Your task to perform on an android device: turn off wifi Image 0: 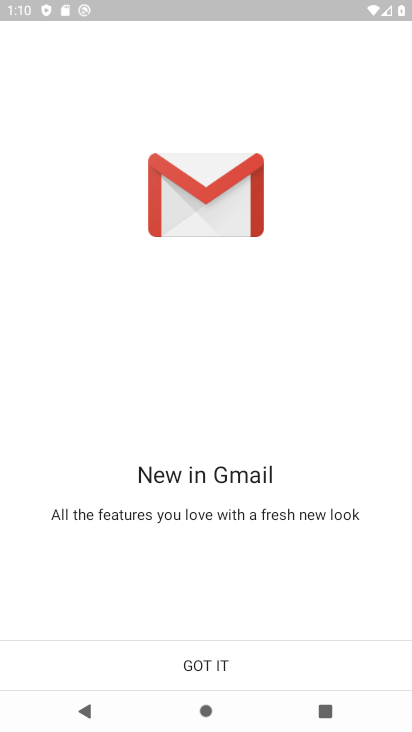
Step 0: press home button
Your task to perform on an android device: turn off wifi Image 1: 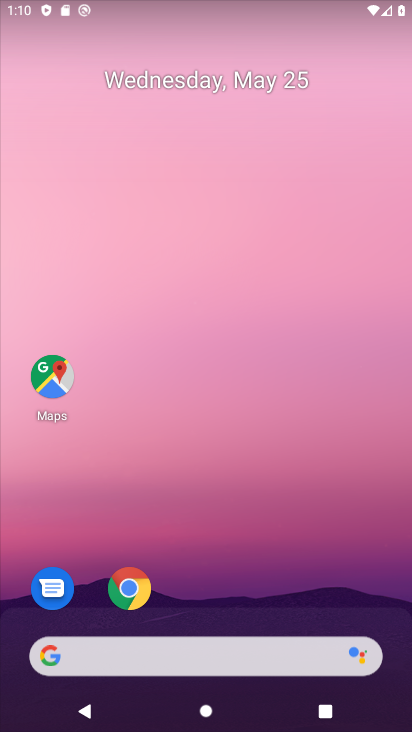
Step 1: drag from (235, 638) to (251, 5)
Your task to perform on an android device: turn off wifi Image 2: 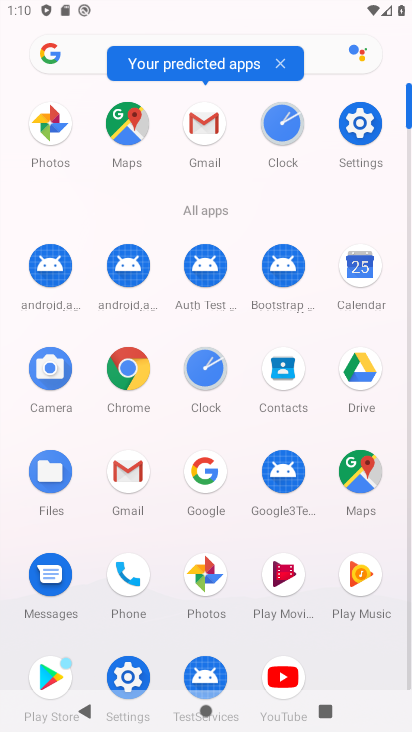
Step 2: click (353, 123)
Your task to perform on an android device: turn off wifi Image 3: 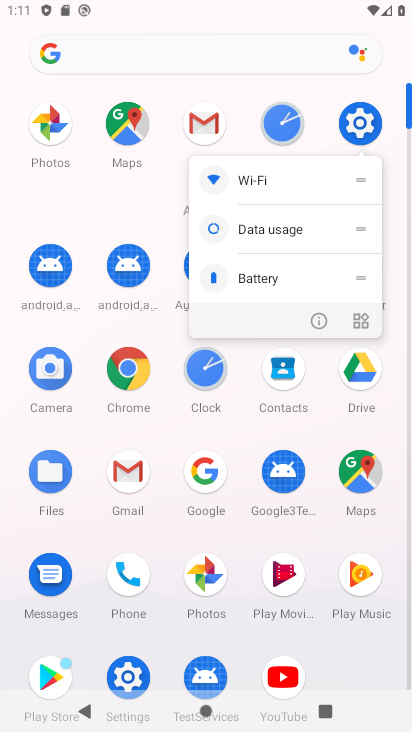
Step 3: click (353, 123)
Your task to perform on an android device: turn off wifi Image 4: 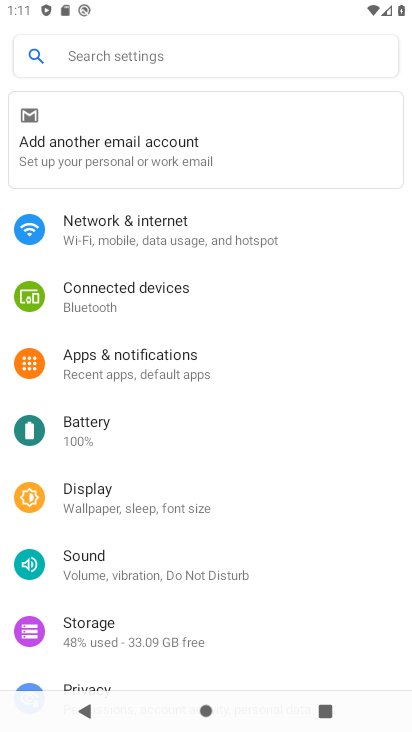
Step 4: click (135, 247)
Your task to perform on an android device: turn off wifi Image 5: 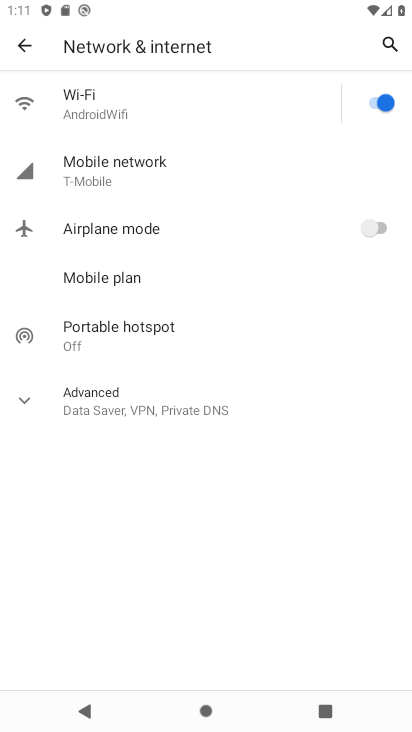
Step 5: click (380, 108)
Your task to perform on an android device: turn off wifi Image 6: 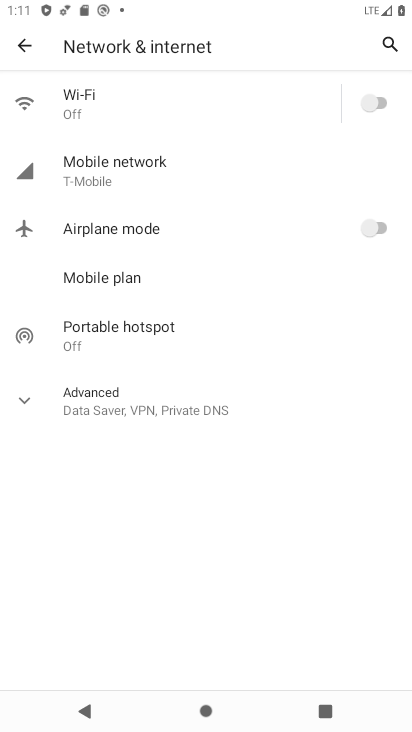
Step 6: task complete